Your task to perform on an android device: Do I have any events tomorrow? Image 0: 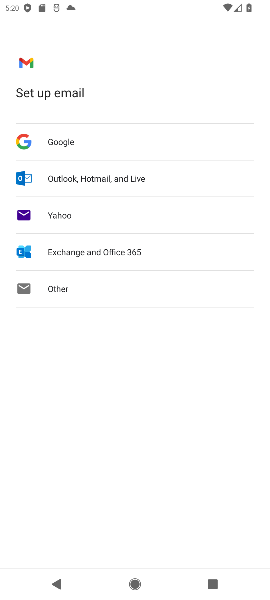
Step 0: press home button
Your task to perform on an android device: Do I have any events tomorrow? Image 1: 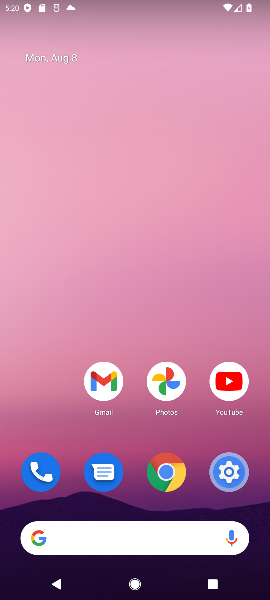
Step 1: drag from (45, 430) to (74, 108)
Your task to perform on an android device: Do I have any events tomorrow? Image 2: 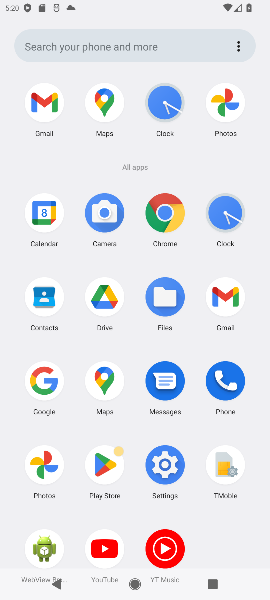
Step 2: click (40, 208)
Your task to perform on an android device: Do I have any events tomorrow? Image 3: 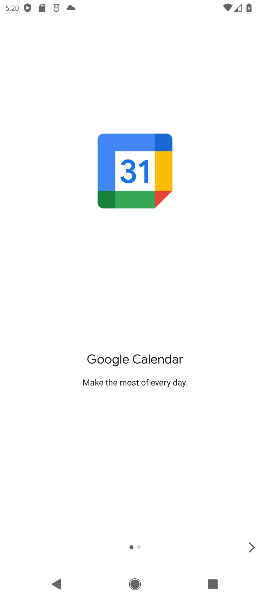
Step 3: click (246, 545)
Your task to perform on an android device: Do I have any events tomorrow? Image 4: 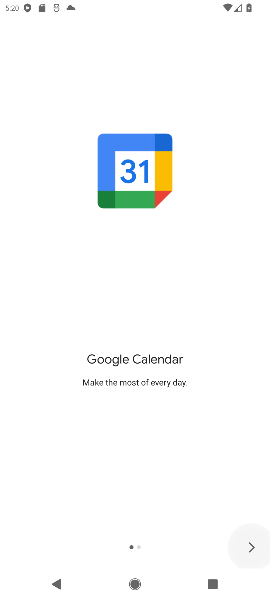
Step 4: click (246, 545)
Your task to perform on an android device: Do I have any events tomorrow? Image 5: 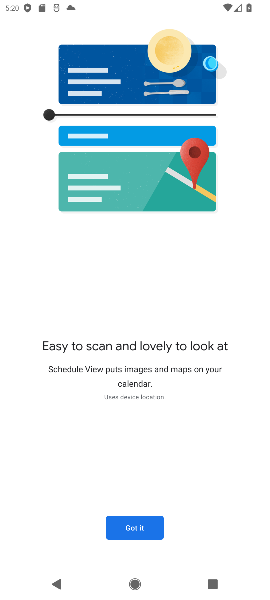
Step 5: click (144, 529)
Your task to perform on an android device: Do I have any events tomorrow? Image 6: 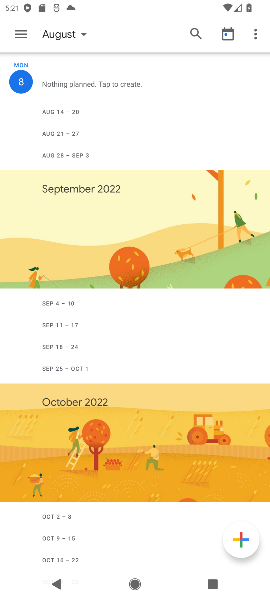
Step 6: click (20, 37)
Your task to perform on an android device: Do I have any events tomorrow? Image 7: 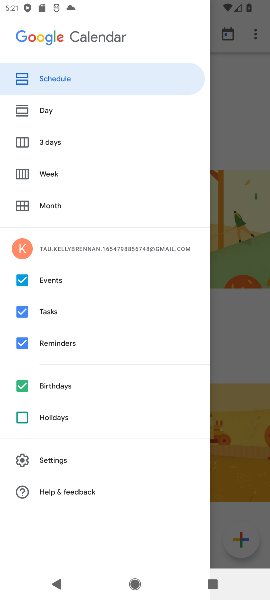
Step 7: click (44, 205)
Your task to perform on an android device: Do I have any events tomorrow? Image 8: 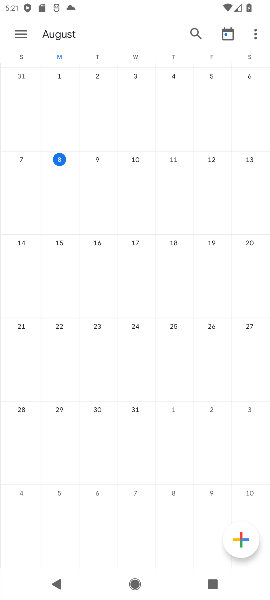
Step 8: click (94, 159)
Your task to perform on an android device: Do I have any events tomorrow? Image 9: 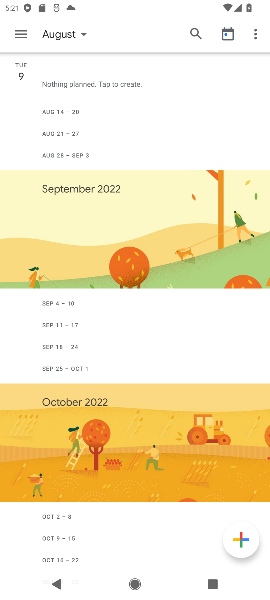
Step 9: task complete